Your task to perform on an android device: What's the weather? Image 0: 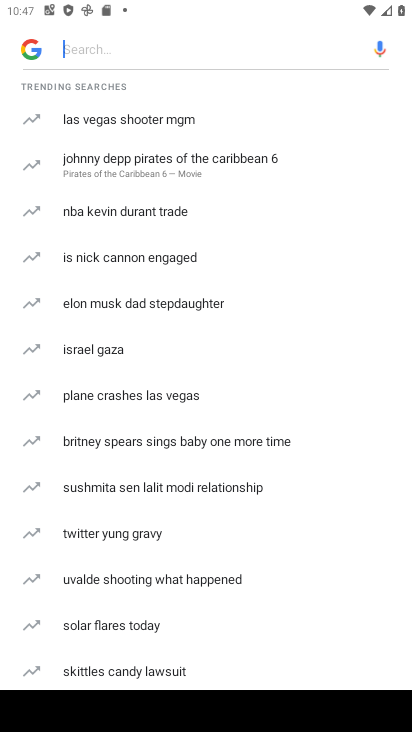
Step 0: click (268, 56)
Your task to perform on an android device: What's the weather? Image 1: 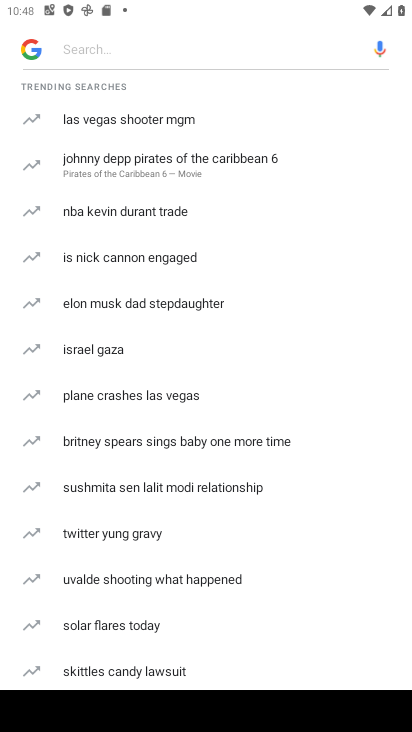
Step 1: type "weather"
Your task to perform on an android device: What's the weather? Image 2: 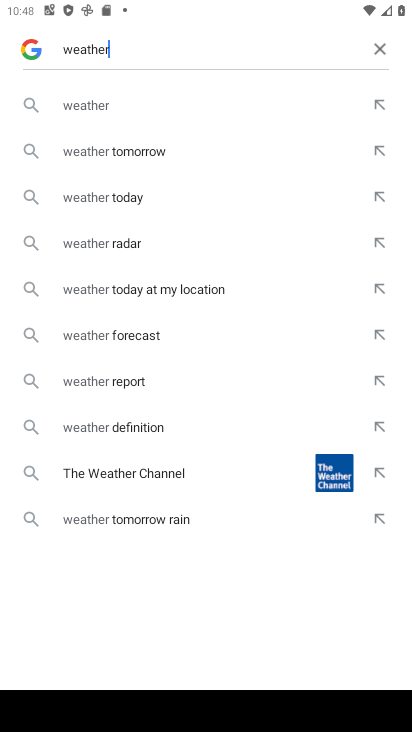
Step 2: click (166, 105)
Your task to perform on an android device: What's the weather? Image 3: 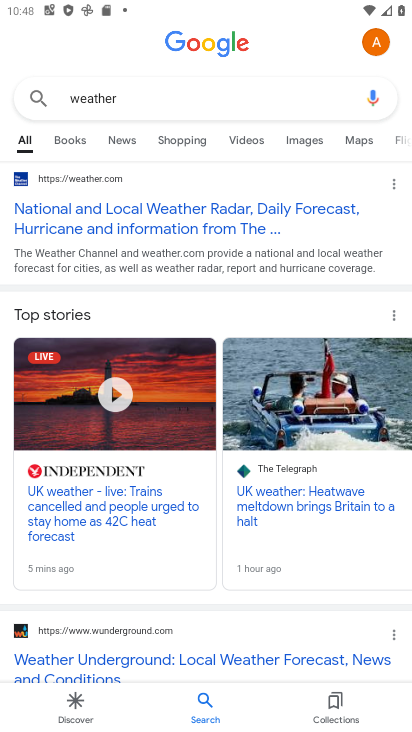
Step 3: task complete